Your task to perform on an android device: Open eBay Image 0: 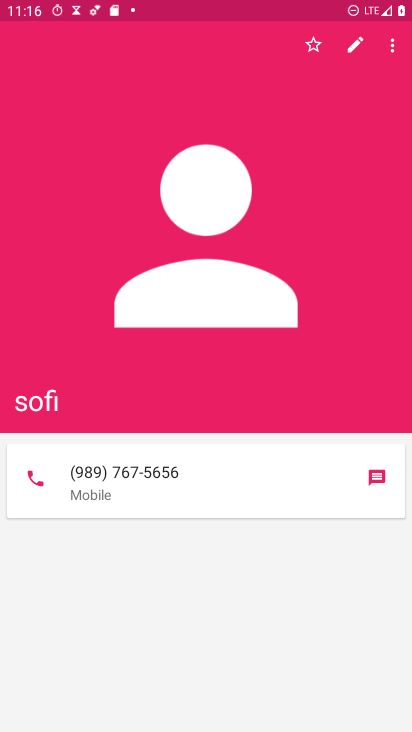
Step 0: press home button
Your task to perform on an android device: Open eBay Image 1: 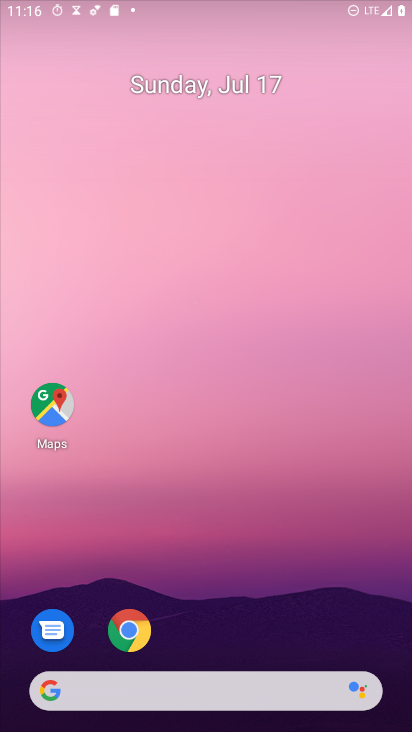
Step 1: drag from (191, 677) to (157, 35)
Your task to perform on an android device: Open eBay Image 2: 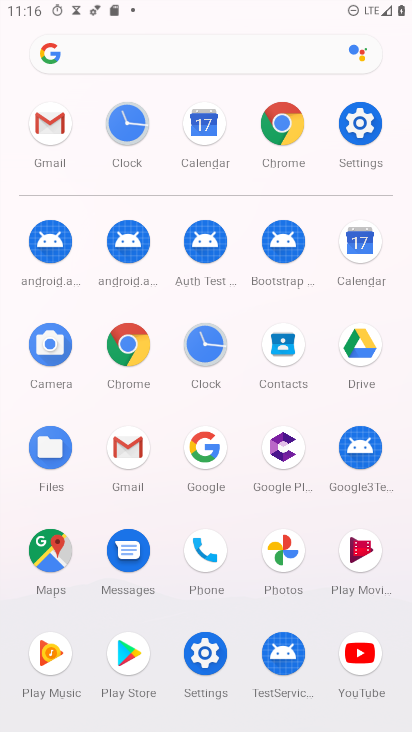
Step 2: click (132, 353)
Your task to perform on an android device: Open eBay Image 3: 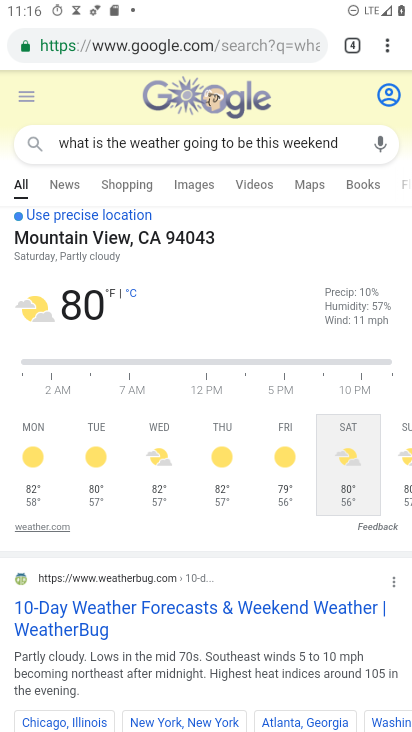
Step 3: click (236, 44)
Your task to perform on an android device: Open eBay Image 4: 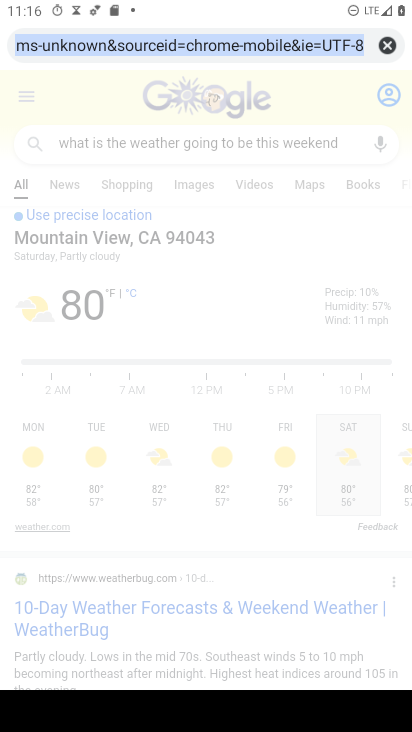
Step 4: type "ebay"
Your task to perform on an android device: Open eBay Image 5: 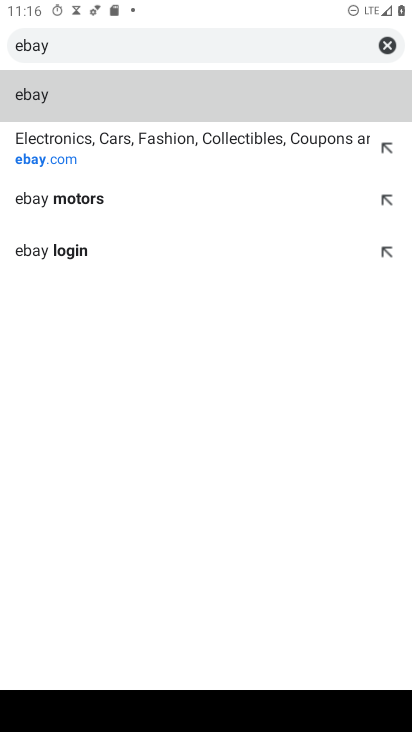
Step 5: click (238, 144)
Your task to perform on an android device: Open eBay Image 6: 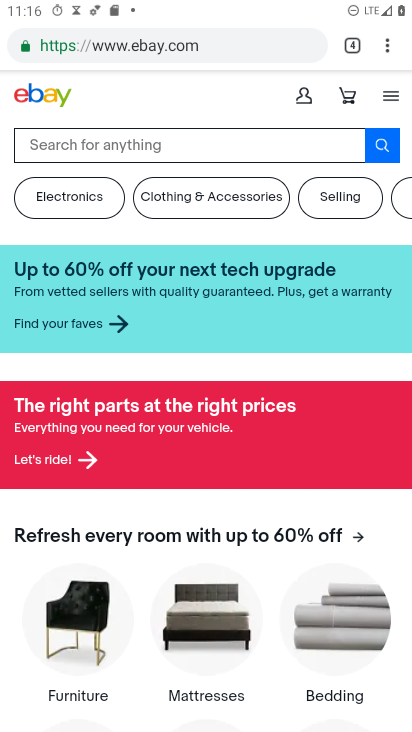
Step 6: task complete